Your task to perform on an android device: Search for "bose soundsport free" on newegg.com, select the first entry, add it to the cart, then select checkout. Image 0: 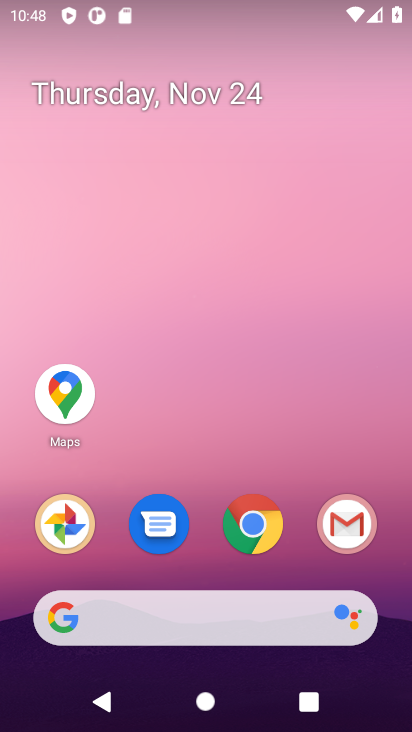
Step 0: click (262, 534)
Your task to perform on an android device: Search for "bose soundsport free" on newegg.com, select the first entry, add it to the cart, then select checkout. Image 1: 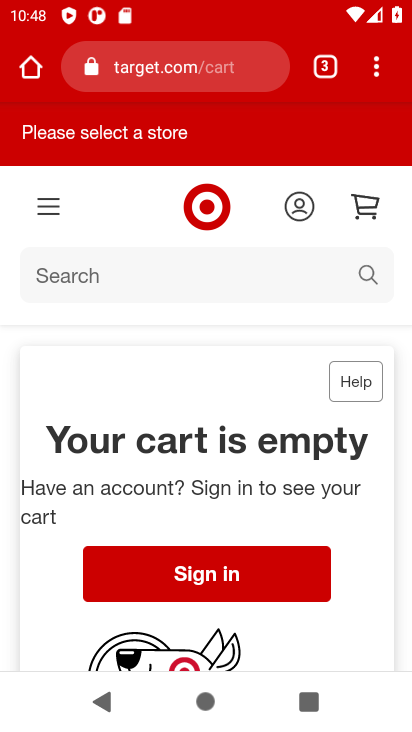
Step 1: click (158, 74)
Your task to perform on an android device: Search for "bose soundsport free" on newegg.com, select the first entry, add it to the cart, then select checkout. Image 2: 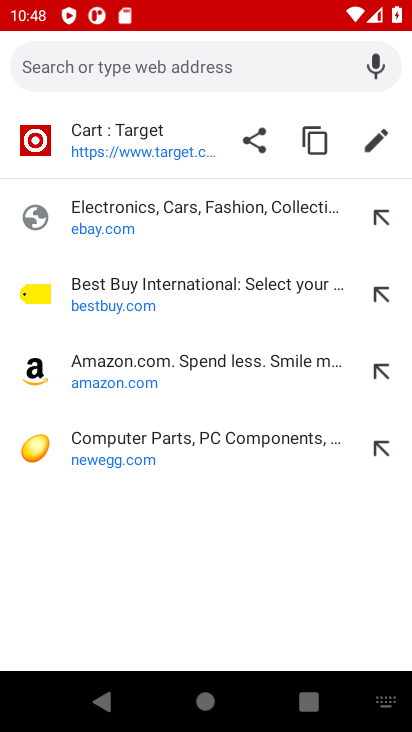
Step 2: click (91, 450)
Your task to perform on an android device: Search for "bose soundsport free" on newegg.com, select the first entry, add it to the cart, then select checkout. Image 3: 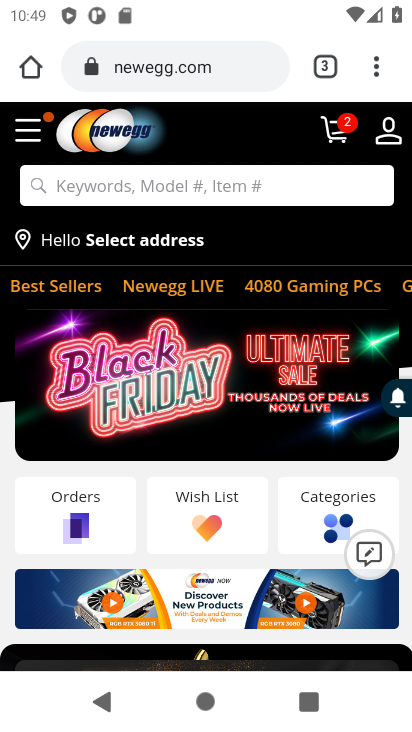
Step 3: click (113, 193)
Your task to perform on an android device: Search for "bose soundsport free" on newegg.com, select the first entry, add it to the cart, then select checkout. Image 4: 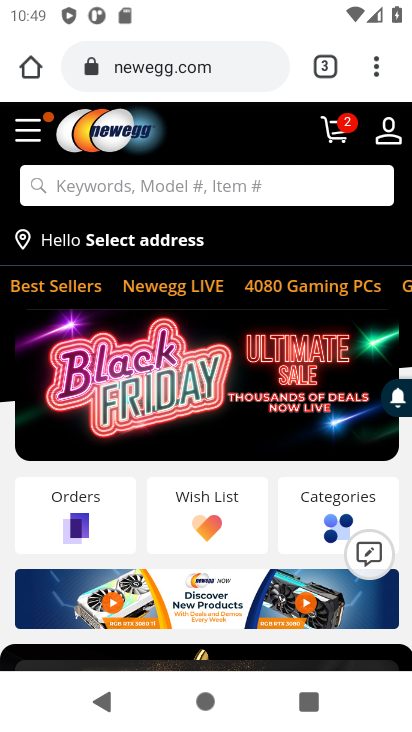
Step 4: click (108, 189)
Your task to perform on an android device: Search for "bose soundsport free" on newegg.com, select the first entry, add it to the cart, then select checkout. Image 5: 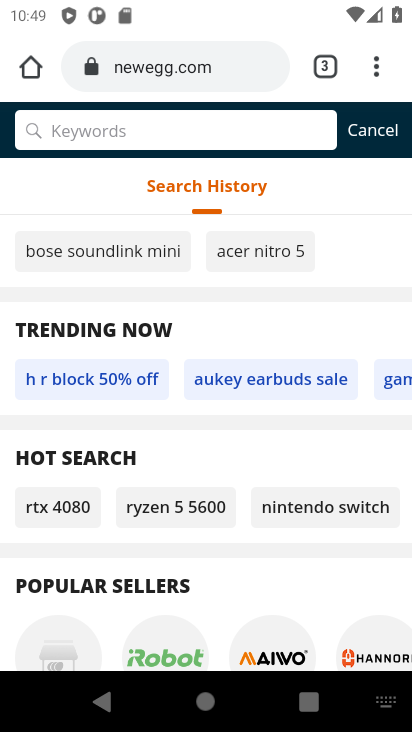
Step 5: type "bose soundsport free"
Your task to perform on an android device: Search for "bose soundsport free" on newegg.com, select the first entry, add it to the cart, then select checkout. Image 6: 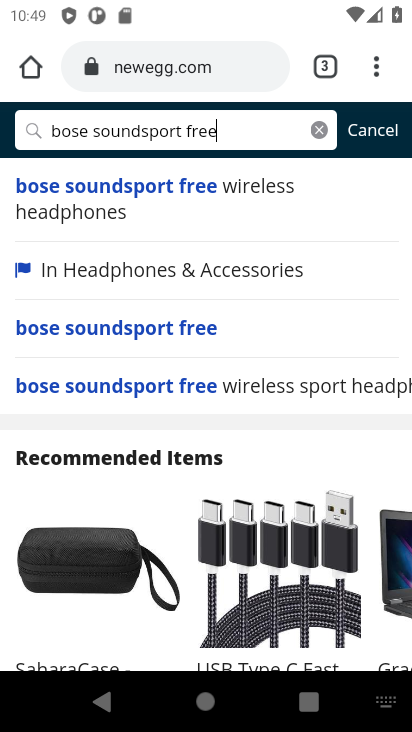
Step 6: click (91, 334)
Your task to perform on an android device: Search for "bose soundsport free" on newegg.com, select the first entry, add it to the cart, then select checkout. Image 7: 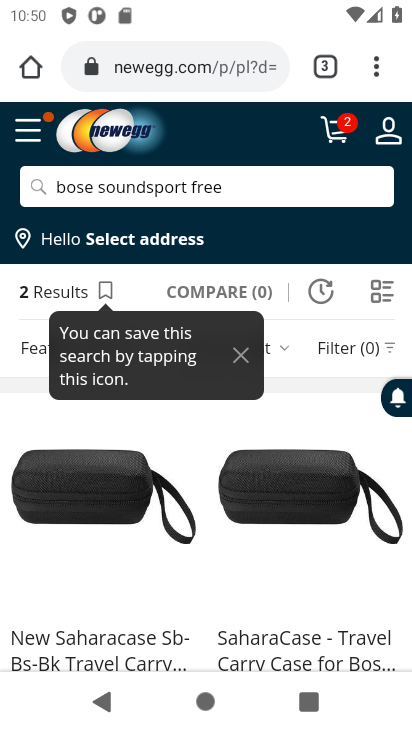
Step 7: task complete